Your task to perform on an android device: Add macbook pro to the cart on ebay, then select checkout. Image 0: 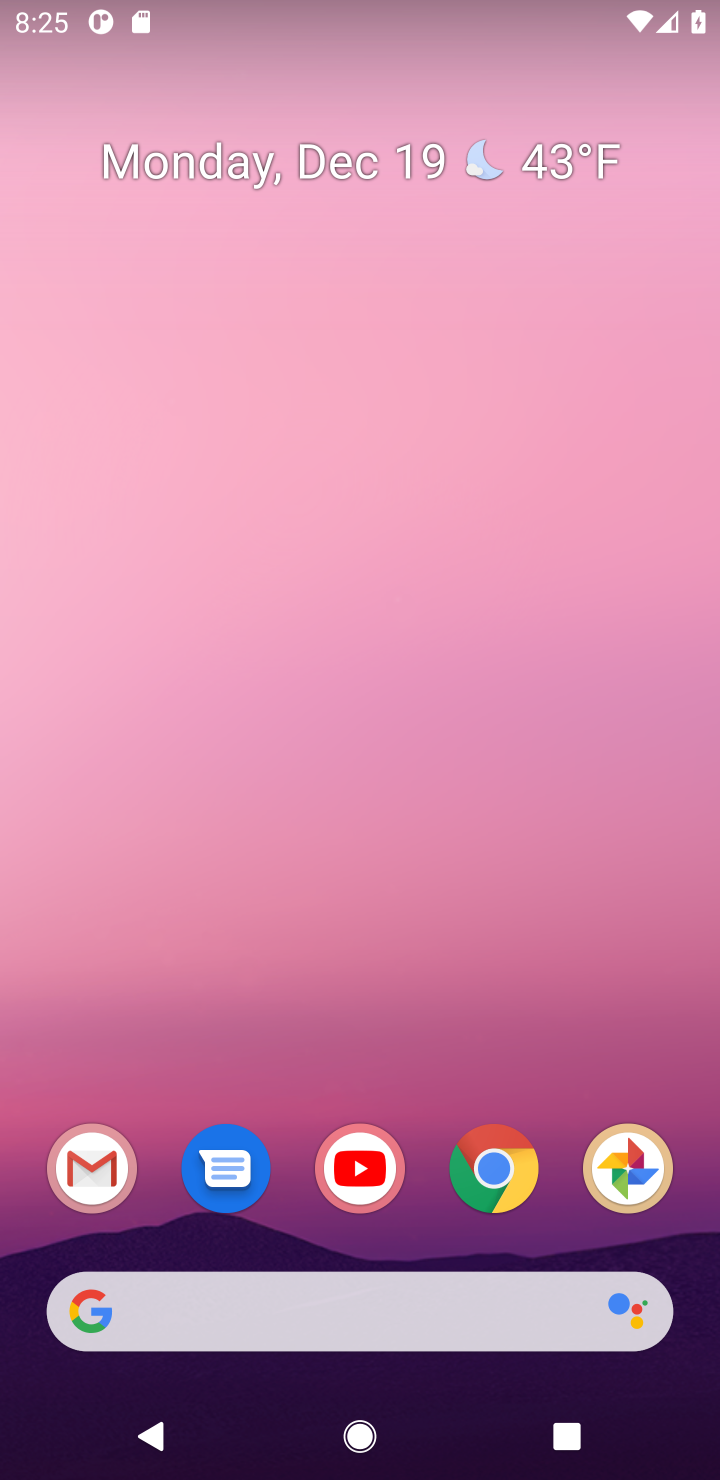
Step 0: click (495, 1176)
Your task to perform on an android device: Add macbook pro to the cart on ebay, then select checkout. Image 1: 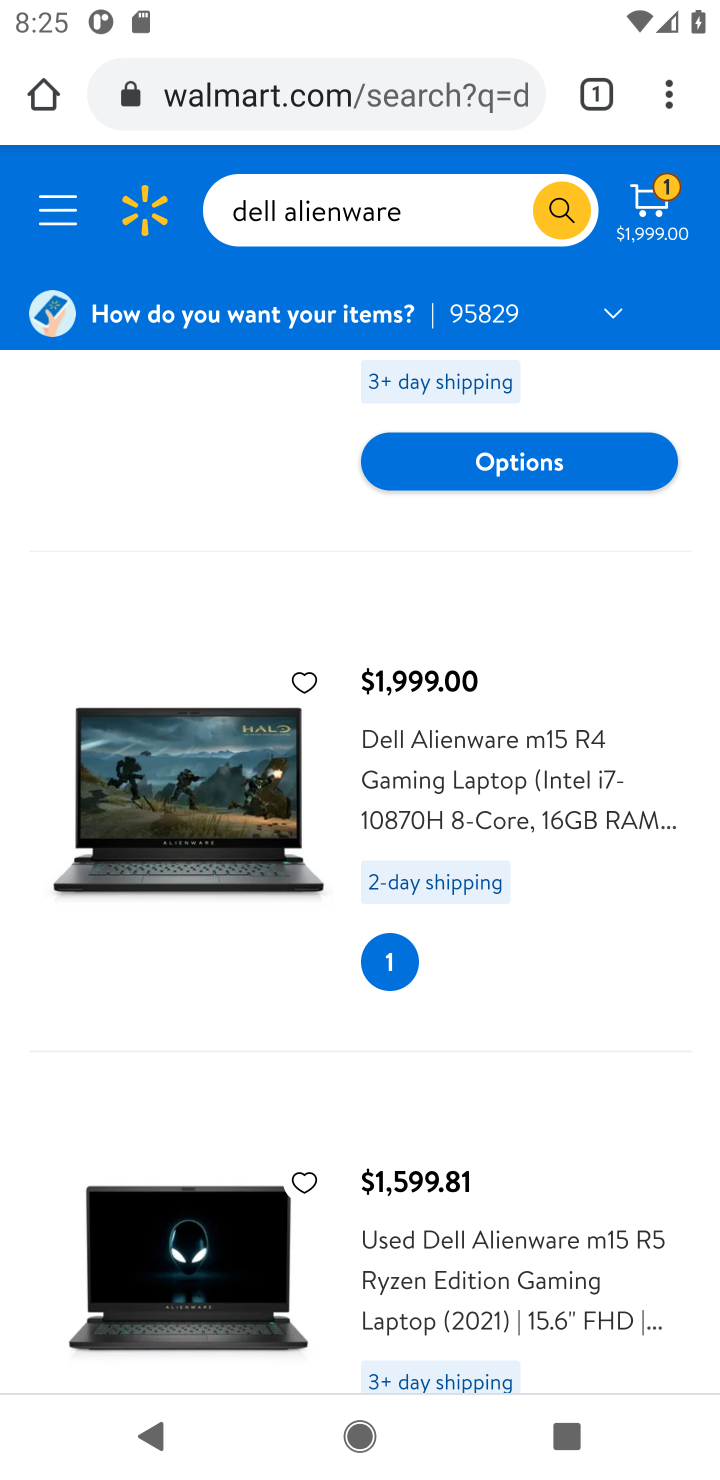
Step 1: click (218, 113)
Your task to perform on an android device: Add macbook pro to the cart on ebay, then select checkout. Image 2: 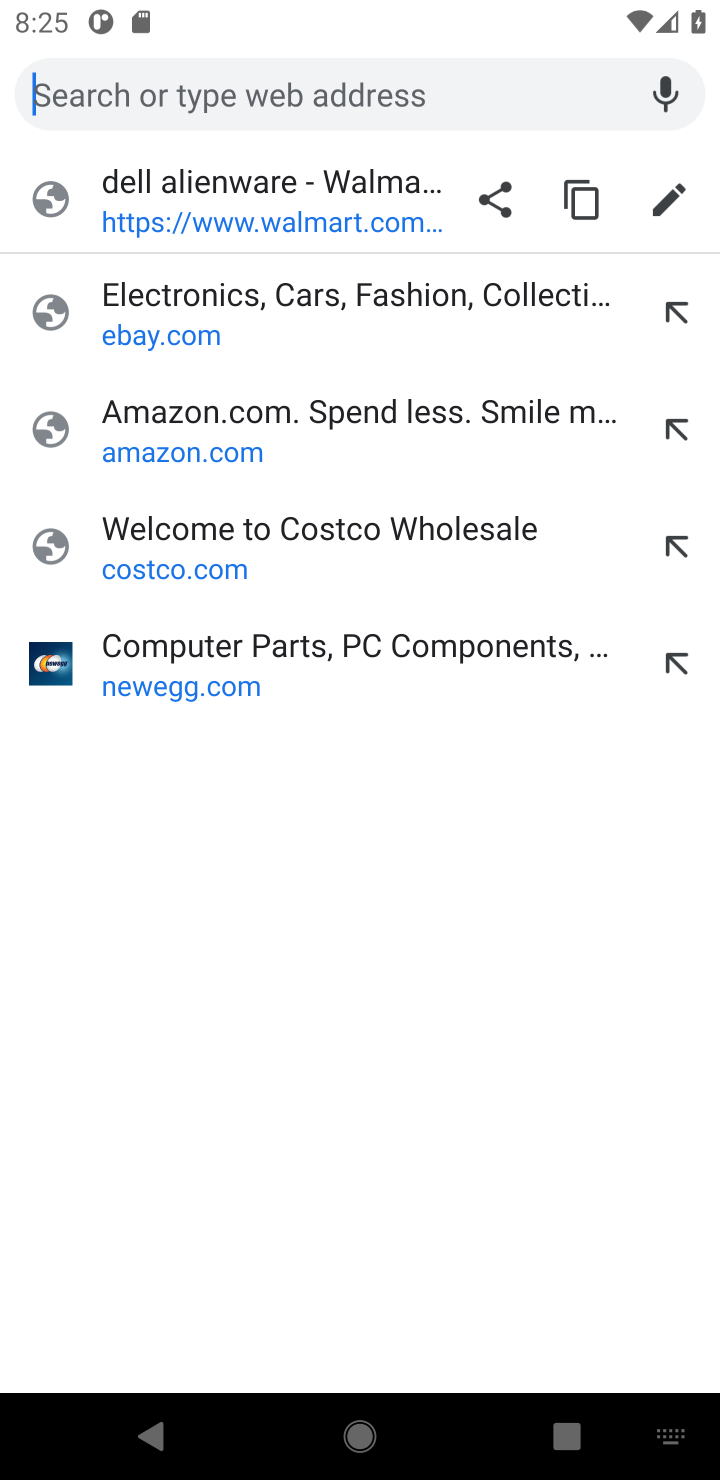
Step 2: click (127, 338)
Your task to perform on an android device: Add macbook pro to the cart on ebay, then select checkout. Image 3: 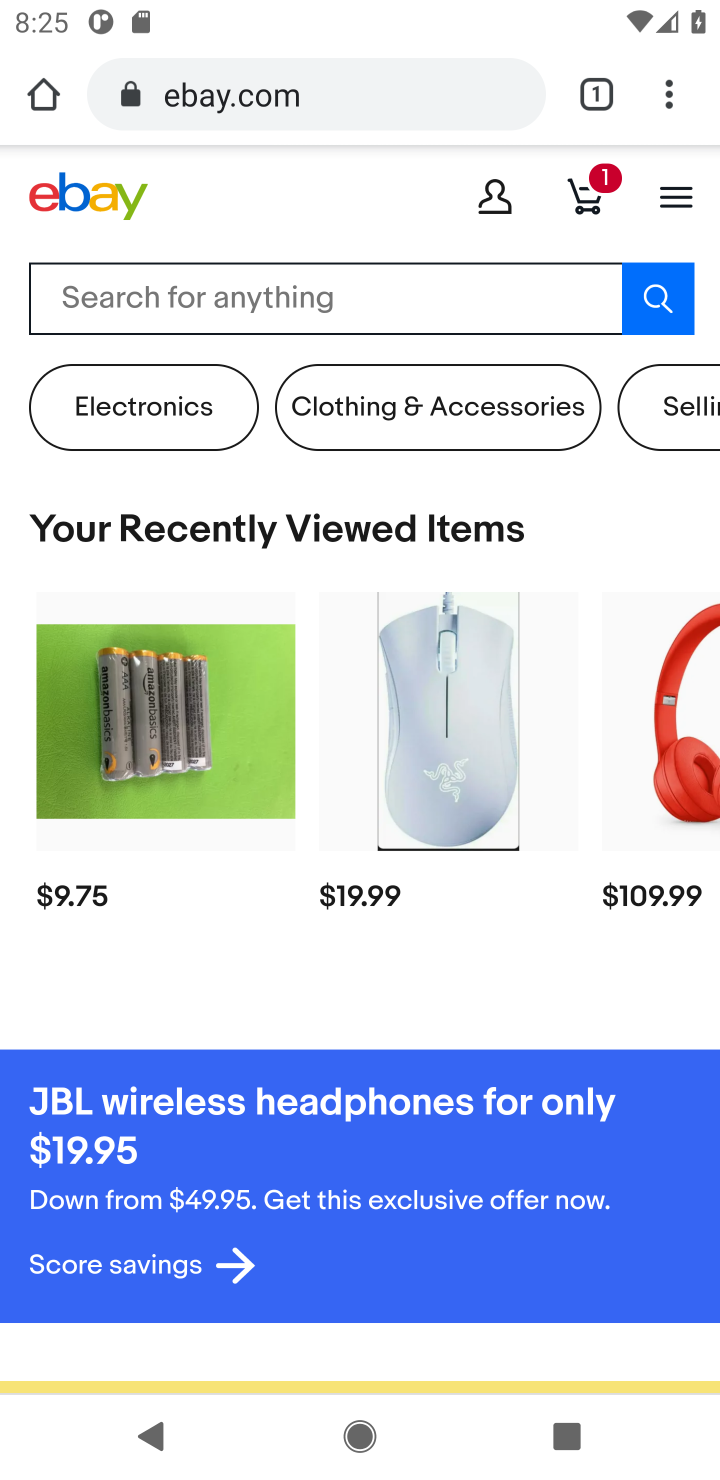
Step 3: click (142, 294)
Your task to perform on an android device: Add macbook pro to the cart on ebay, then select checkout. Image 4: 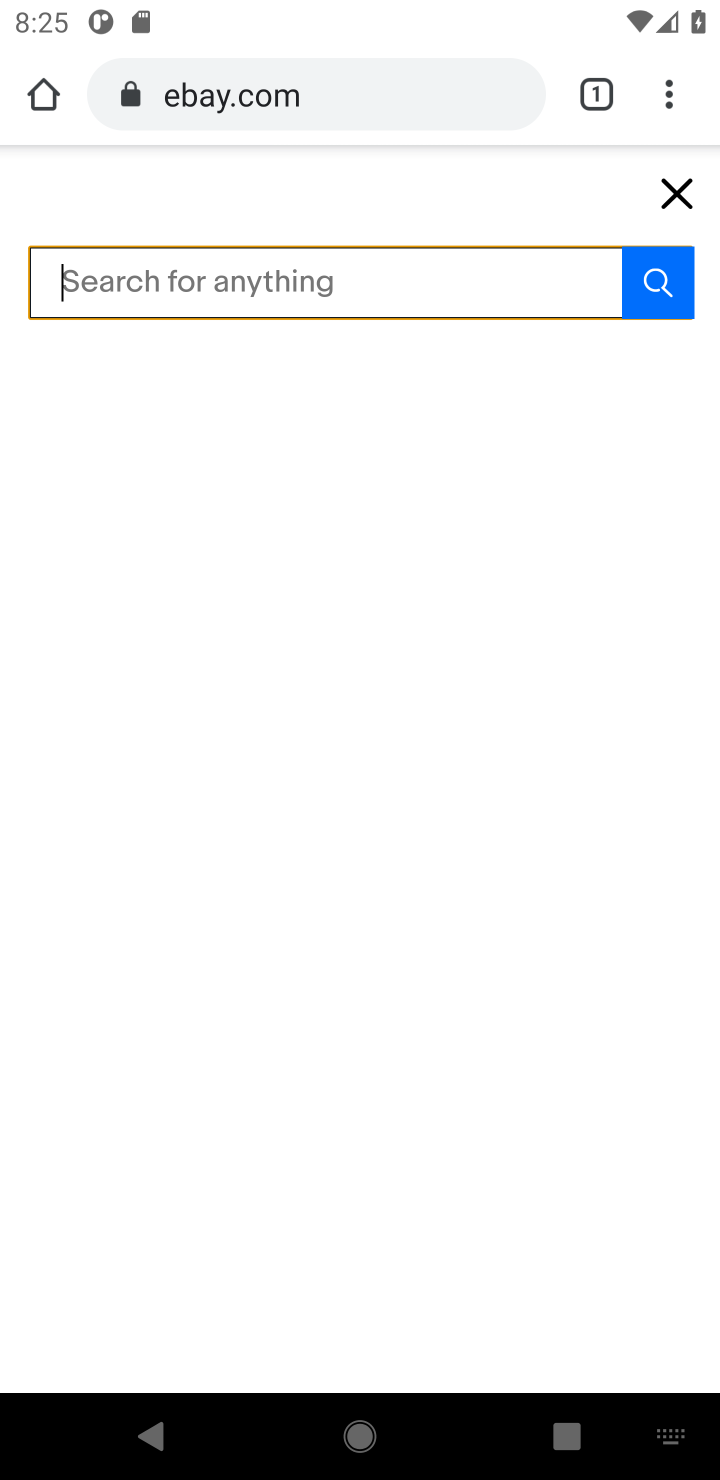
Step 4: type "macbook pro"
Your task to perform on an android device: Add macbook pro to the cart on ebay, then select checkout. Image 5: 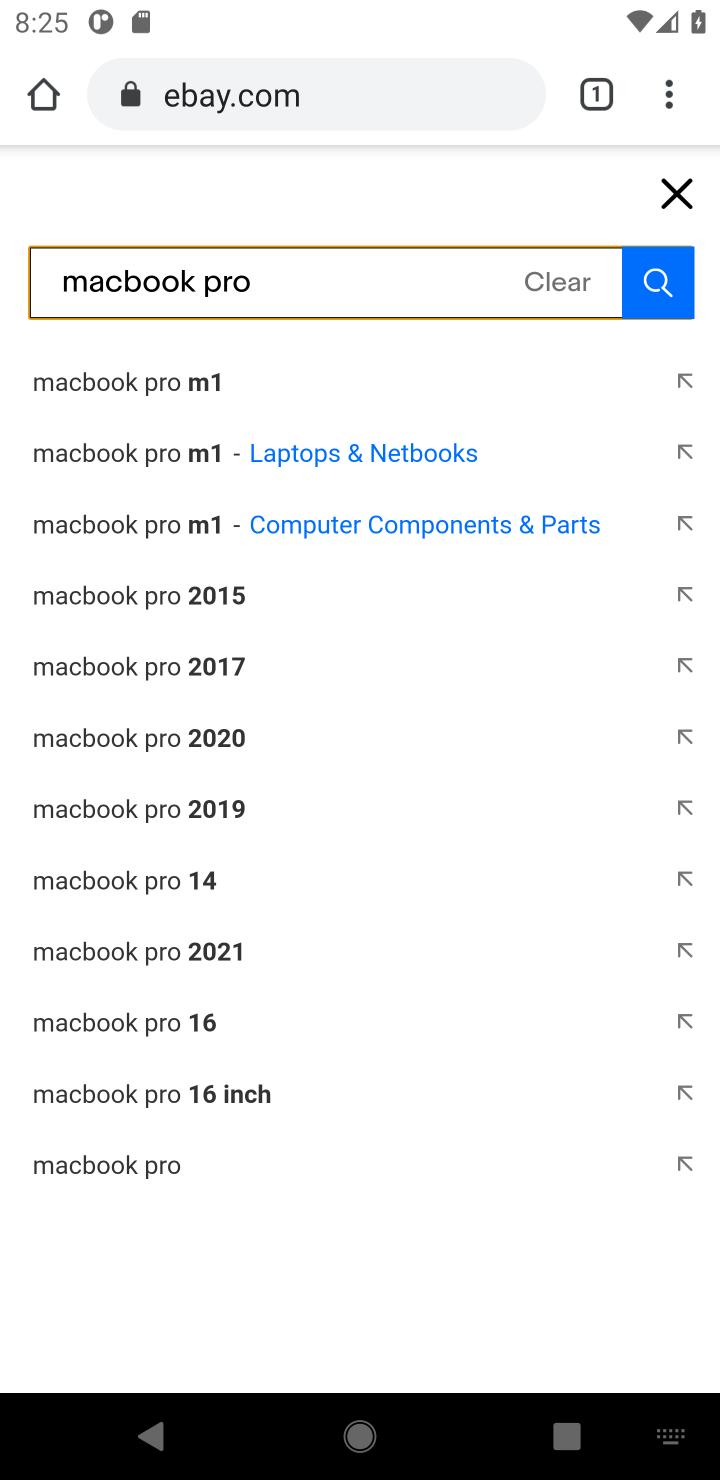
Step 5: click (149, 1163)
Your task to perform on an android device: Add macbook pro to the cart on ebay, then select checkout. Image 6: 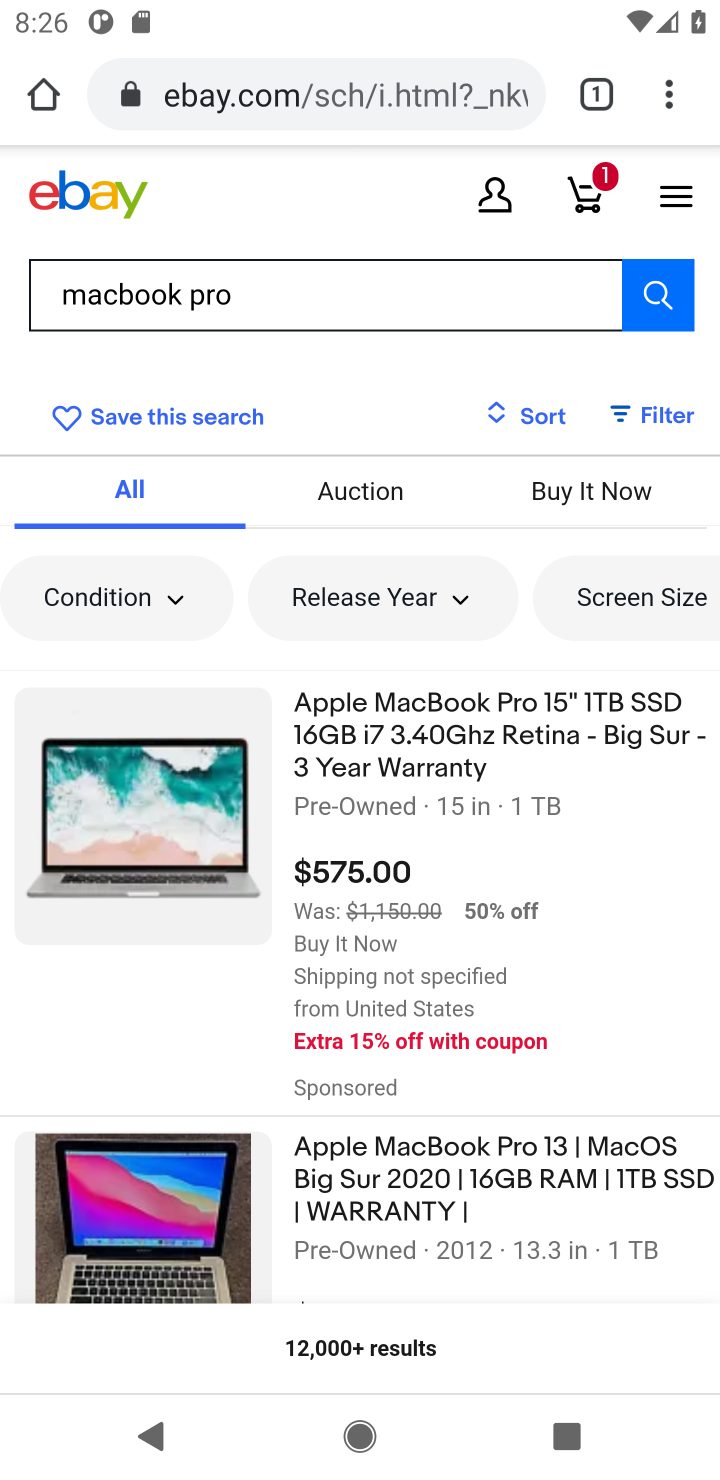
Step 6: click (389, 731)
Your task to perform on an android device: Add macbook pro to the cart on ebay, then select checkout. Image 7: 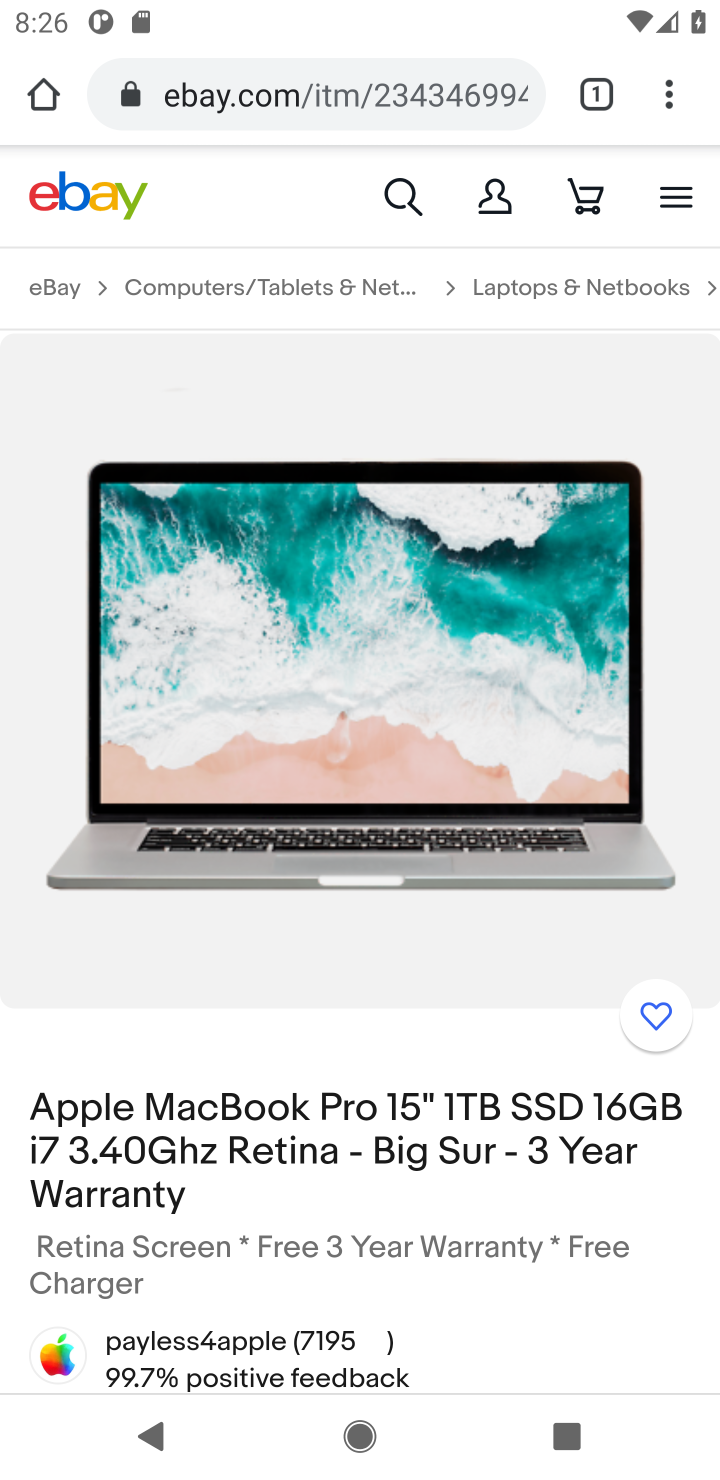
Step 7: drag from (332, 1011) to (315, 599)
Your task to perform on an android device: Add macbook pro to the cart on ebay, then select checkout. Image 8: 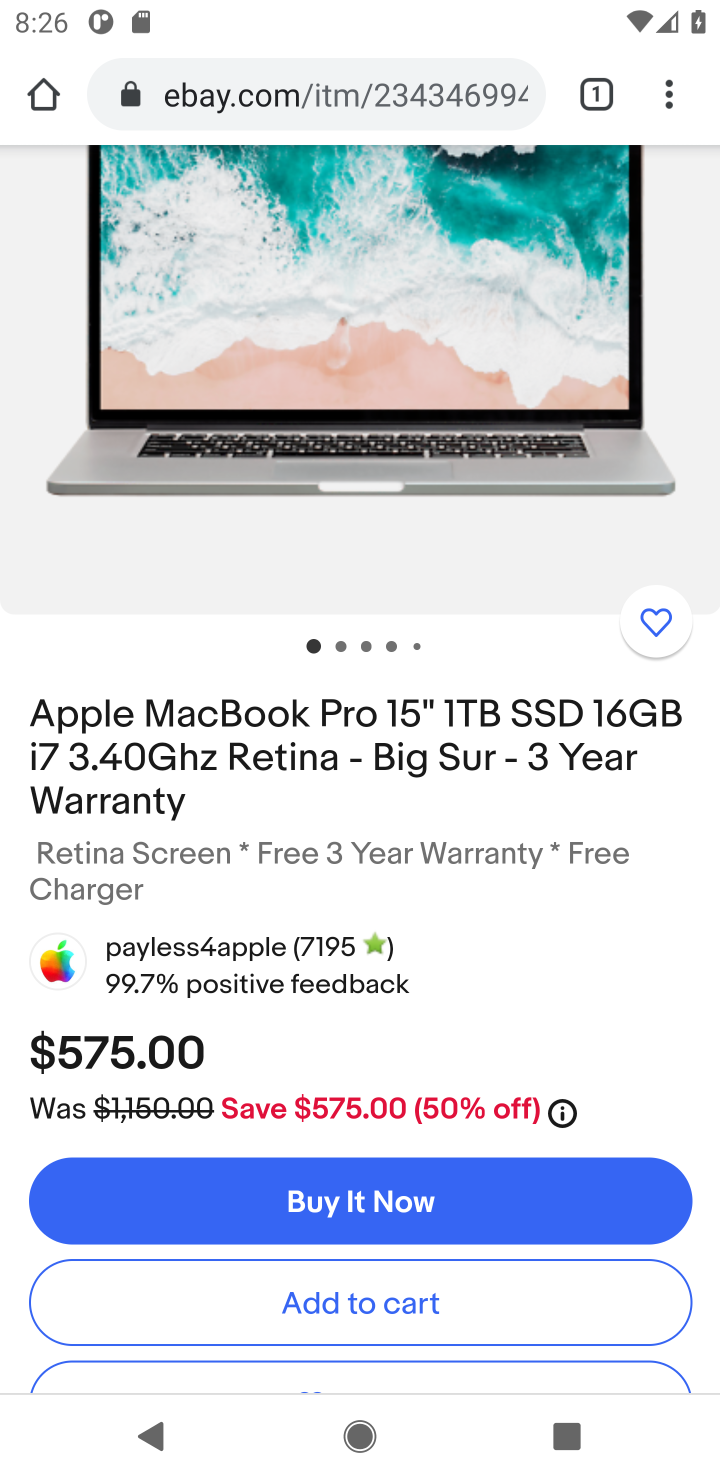
Step 8: click (323, 1312)
Your task to perform on an android device: Add macbook pro to the cart on ebay, then select checkout. Image 9: 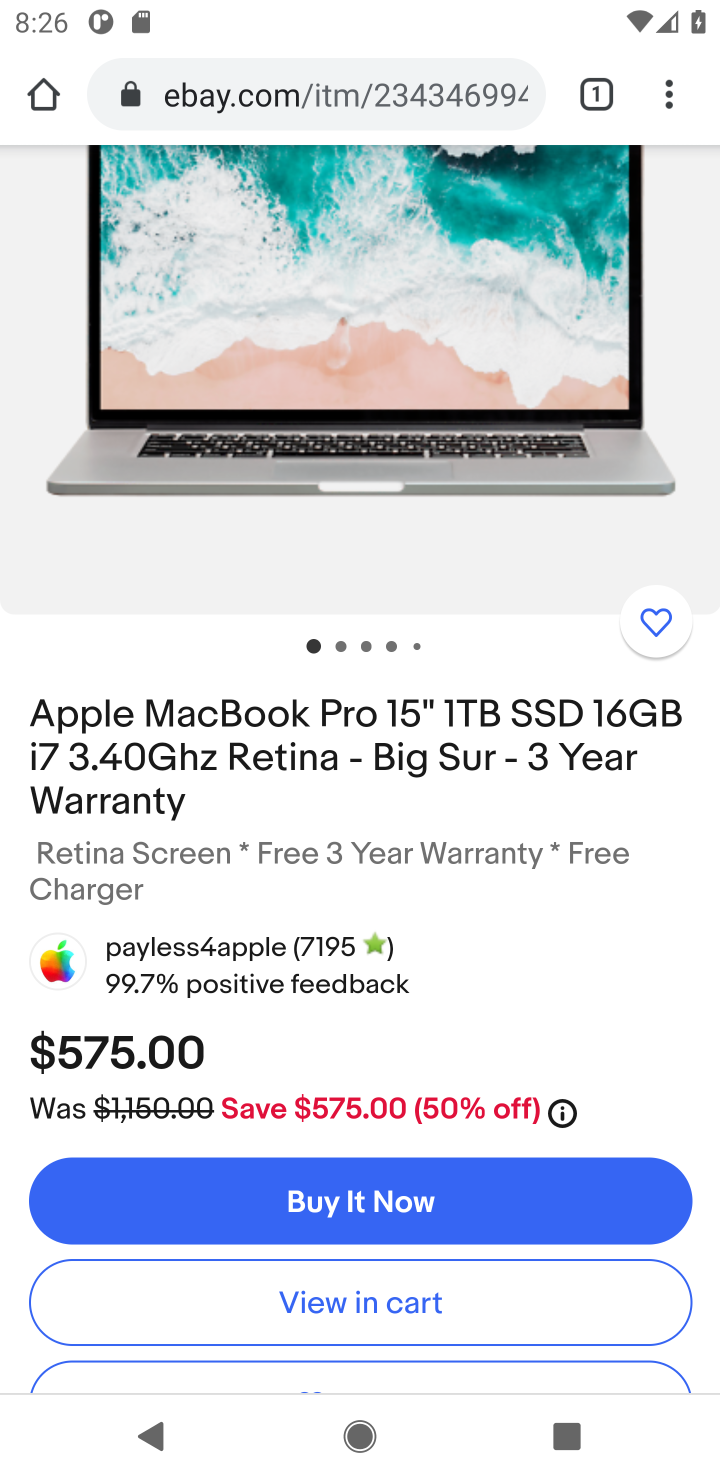
Step 9: click (323, 1312)
Your task to perform on an android device: Add macbook pro to the cart on ebay, then select checkout. Image 10: 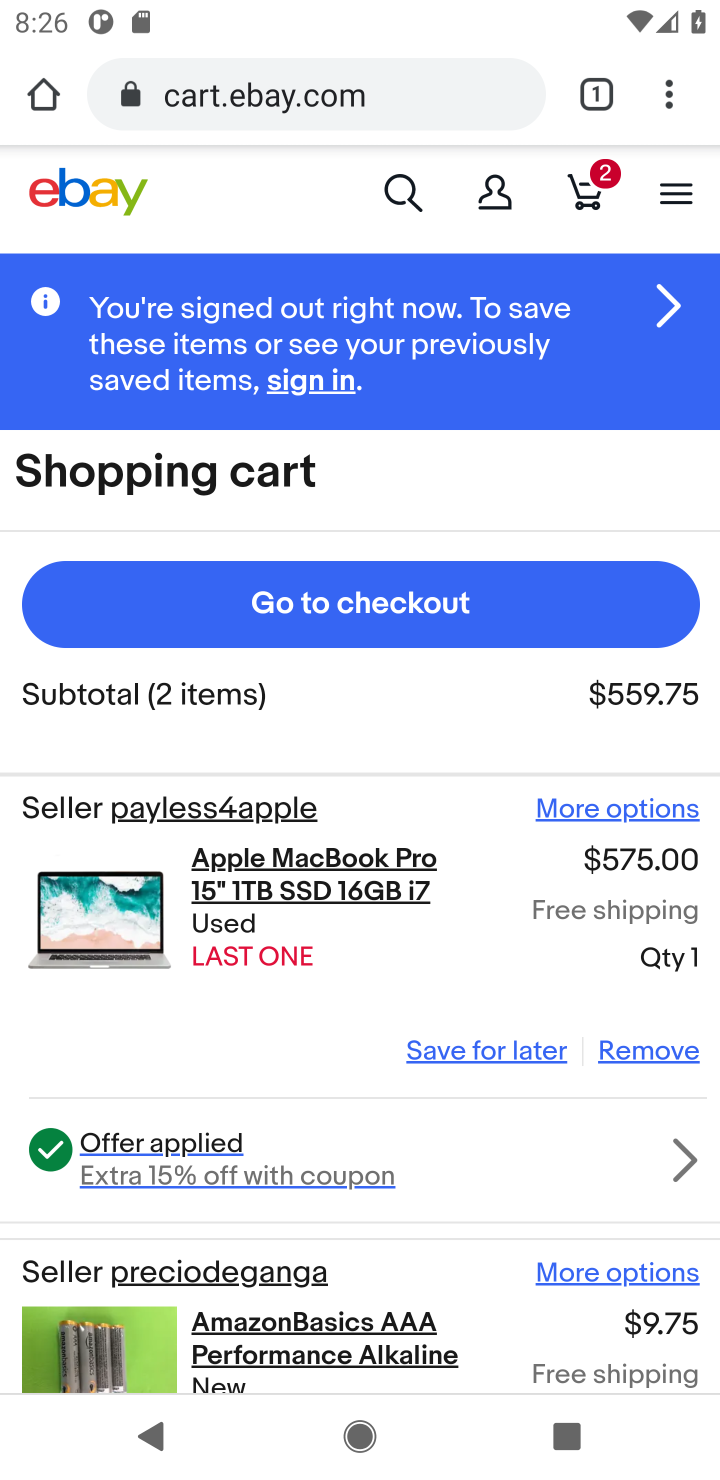
Step 10: click (349, 618)
Your task to perform on an android device: Add macbook pro to the cart on ebay, then select checkout. Image 11: 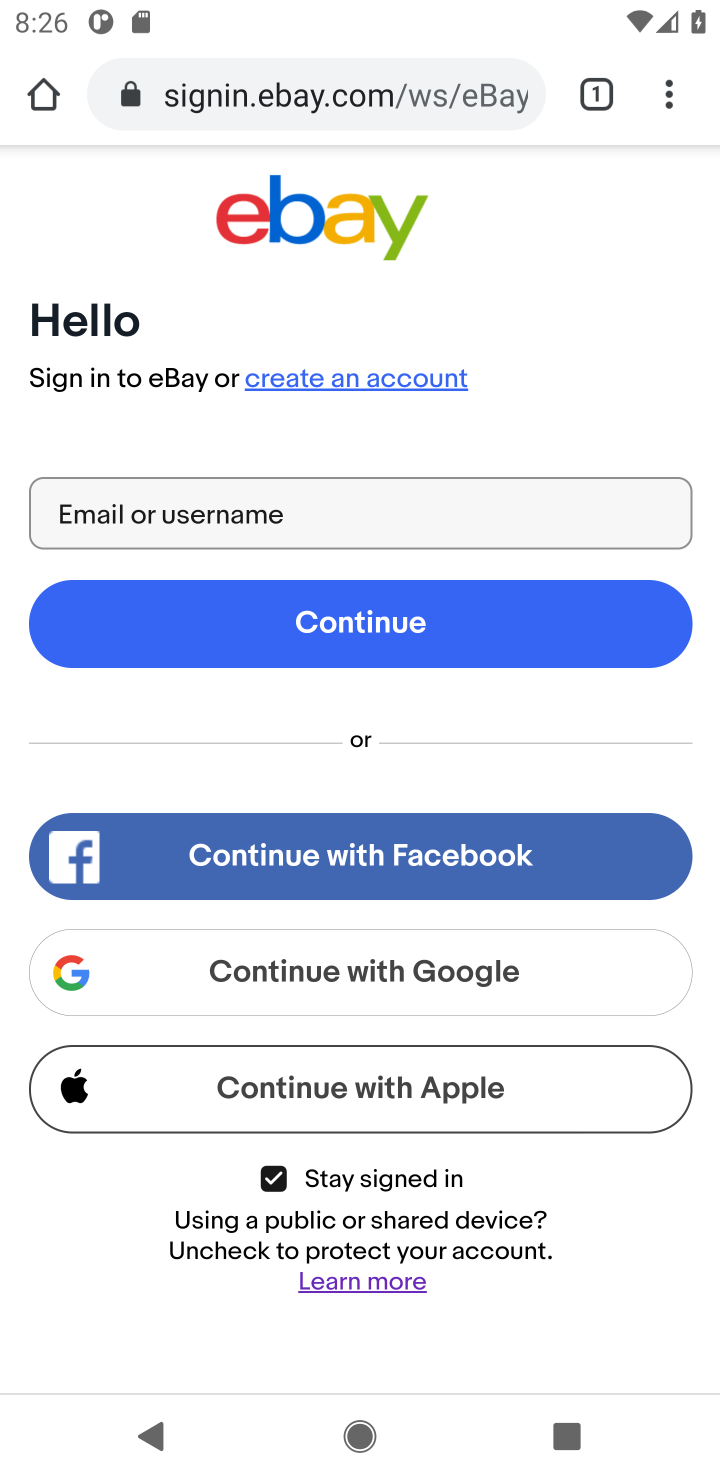
Step 11: task complete